Your task to perform on an android device: Go to calendar. Show me events next week Image 0: 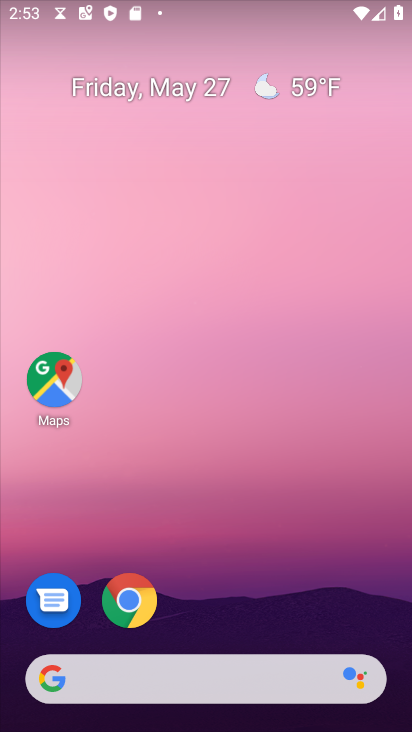
Step 0: drag from (258, 619) to (204, 80)
Your task to perform on an android device: Go to calendar. Show me events next week Image 1: 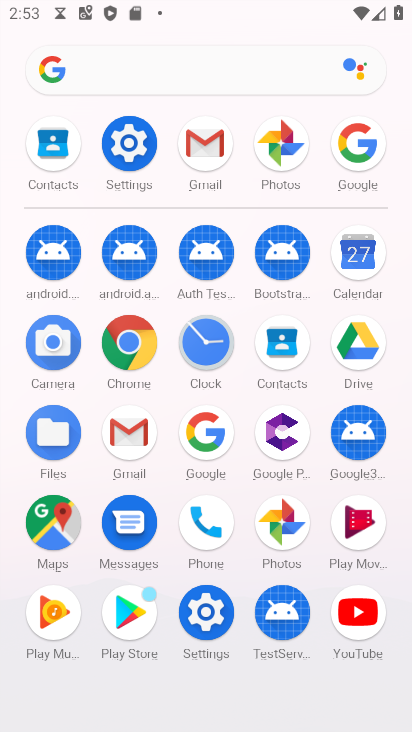
Step 1: click (358, 255)
Your task to perform on an android device: Go to calendar. Show me events next week Image 2: 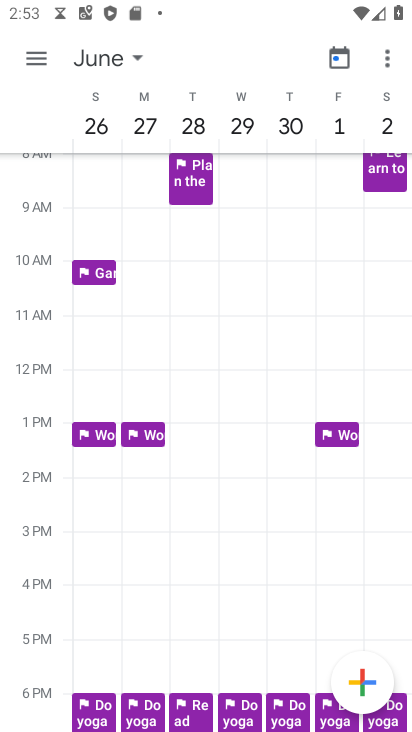
Step 2: click (342, 56)
Your task to perform on an android device: Go to calendar. Show me events next week Image 3: 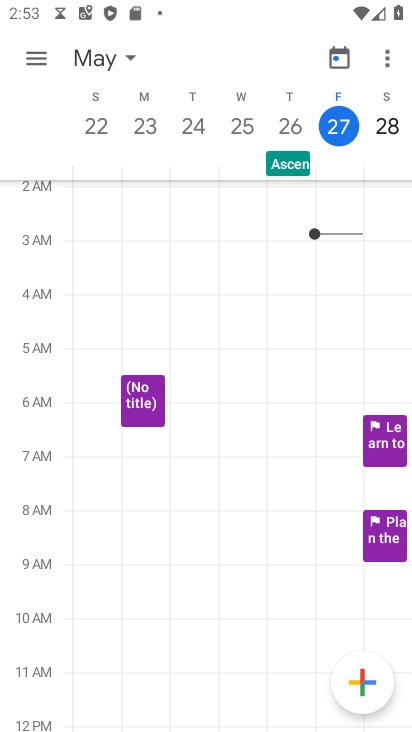
Step 3: click (127, 61)
Your task to perform on an android device: Go to calendar. Show me events next week Image 4: 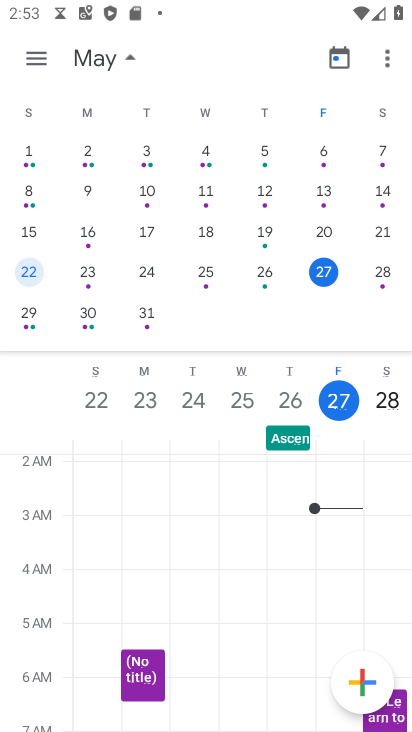
Step 4: click (93, 316)
Your task to perform on an android device: Go to calendar. Show me events next week Image 5: 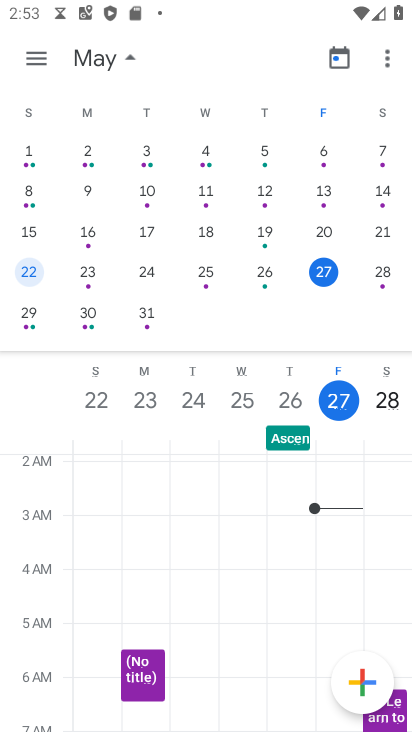
Step 5: click (89, 307)
Your task to perform on an android device: Go to calendar. Show me events next week Image 6: 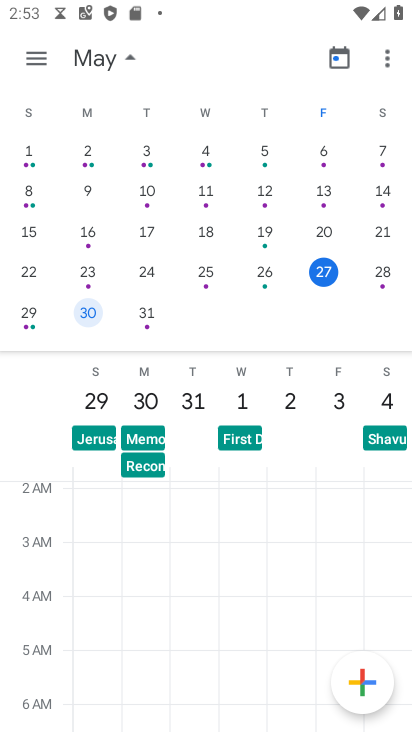
Step 6: click (33, 53)
Your task to perform on an android device: Go to calendar. Show me events next week Image 7: 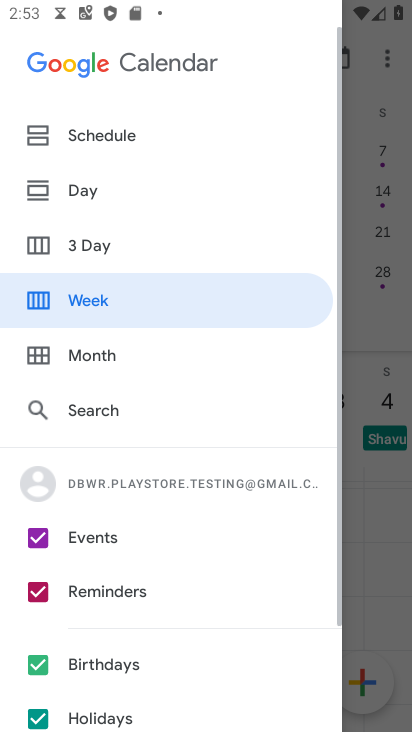
Step 7: click (88, 139)
Your task to perform on an android device: Go to calendar. Show me events next week Image 8: 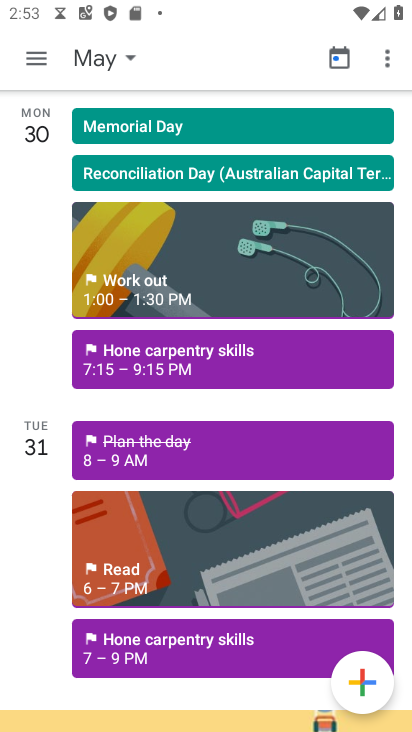
Step 8: task complete